Your task to perform on an android device: check android version Image 0: 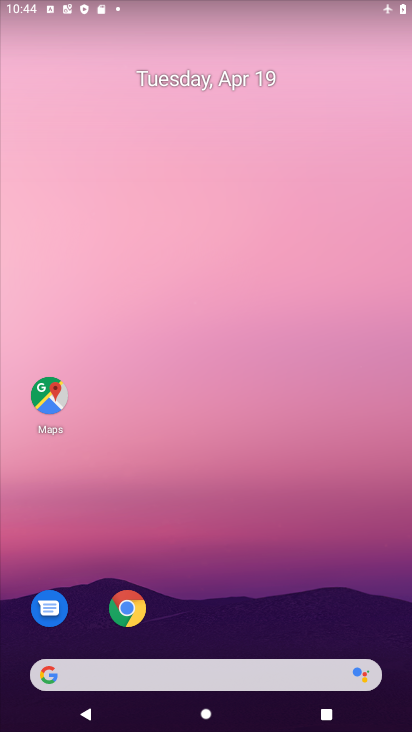
Step 0: drag from (378, 619) to (308, 95)
Your task to perform on an android device: check android version Image 1: 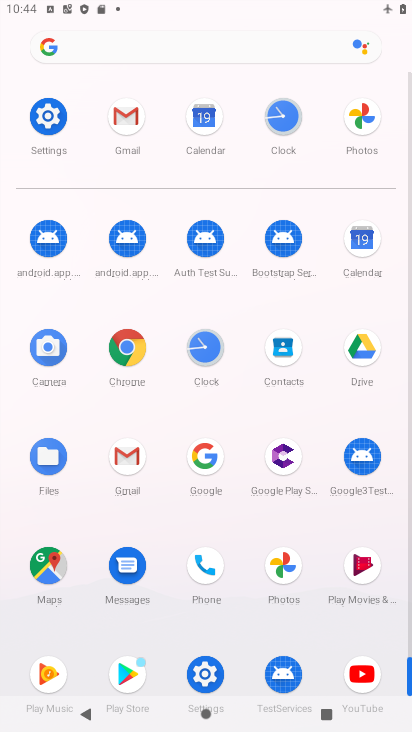
Step 1: click (206, 677)
Your task to perform on an android device: check android version Image 2: 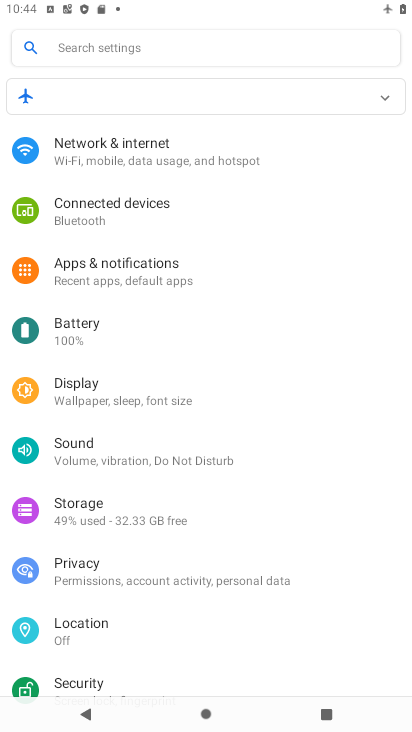
Step 2: drag from (357, 615) to (321, 131)
Your task to perform on an android device: check android version Image 3: 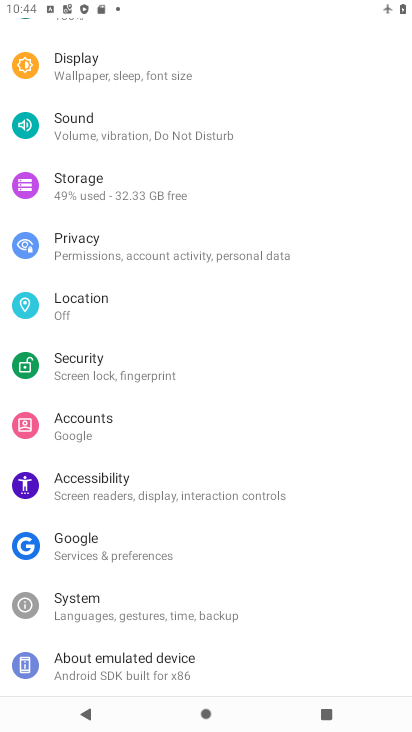
Step 3: drag from (290, 609) to (328, 325)
Your task to perform on an android device: check android version Image 4: 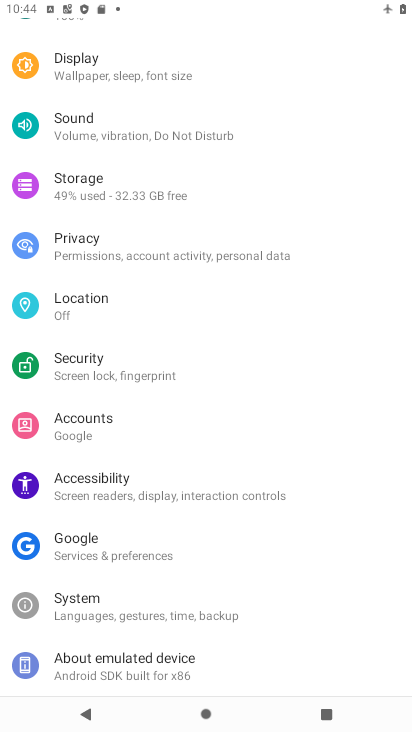
Step 4: click (92, 666)
Your task to perform on an android device: check android version Image 5: 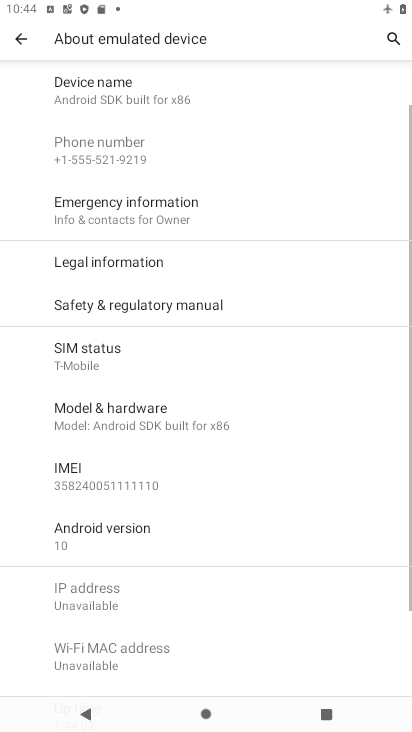
Step 5: click (78, 533)
Your task to perform on an android device: check android version Image 6: 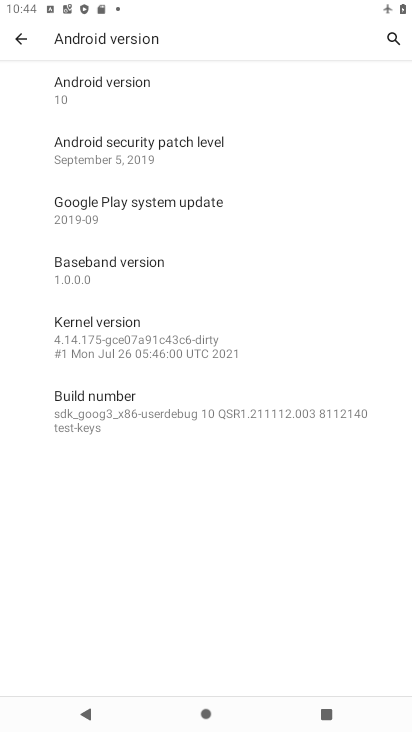
Step 6: task complete